Your task to perform on an android device: Go to privacy settings Image 0: 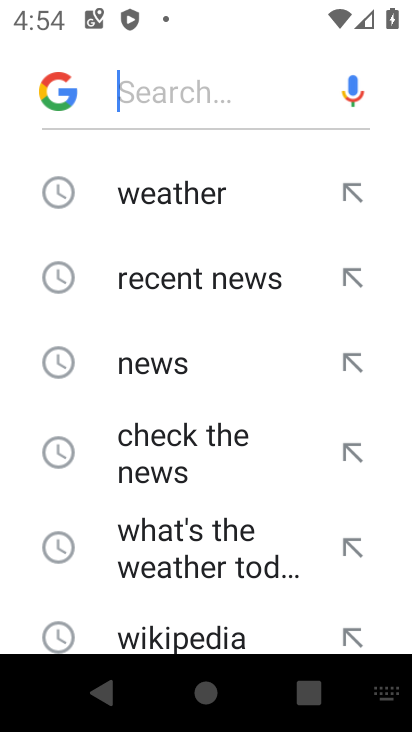
Step 0: press home button
Your task to perform on an android device: Go to privacy settings Image 1: 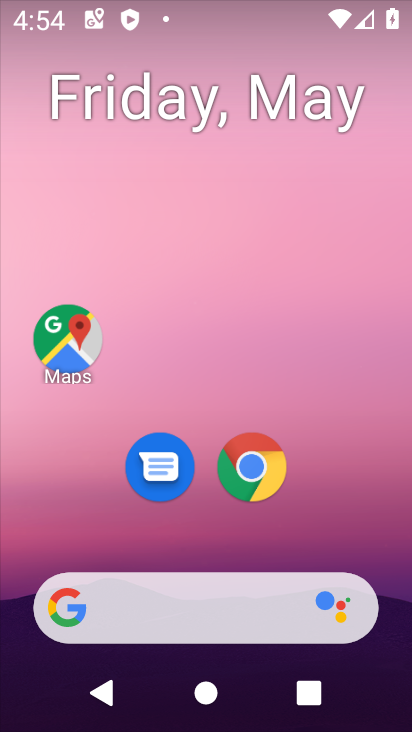
Step 1: drag from (328, 550) to (294, 52)
Your task to perform on an android device: Go to privacy settings Image 2: 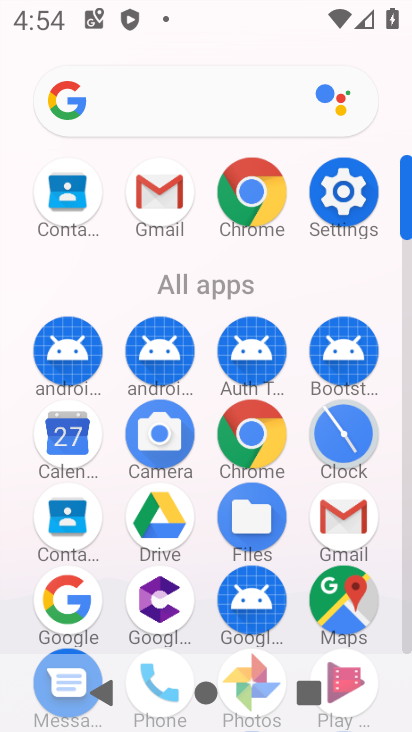
Step 2: click (334, 179)
Your task to perform on an android device: Go to privacy settings Image 3: 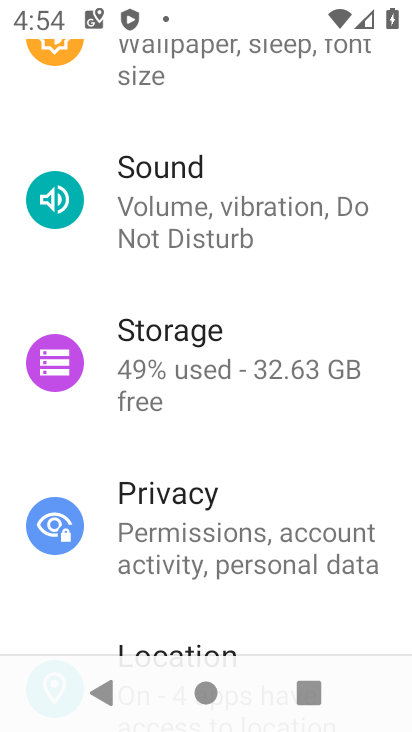
Step 3: click (171, 507)
Your task to perform on an android device: Go to privacy settings Image 4: 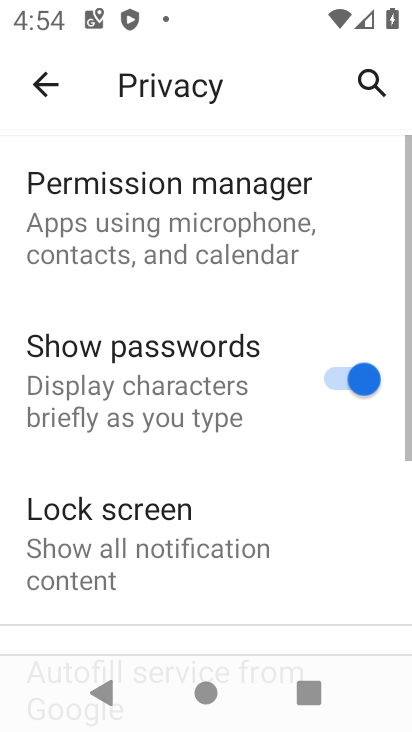
Step 4: task complete